Your task to perform on an android device: turn off improve location accuracy Image 0: 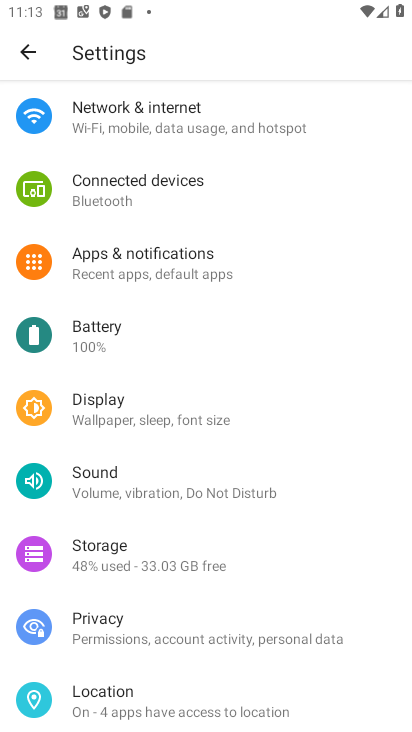
Step 0: click (155, 699)
Your task to perform on an android device: turn off improve location accuracy Image 1: 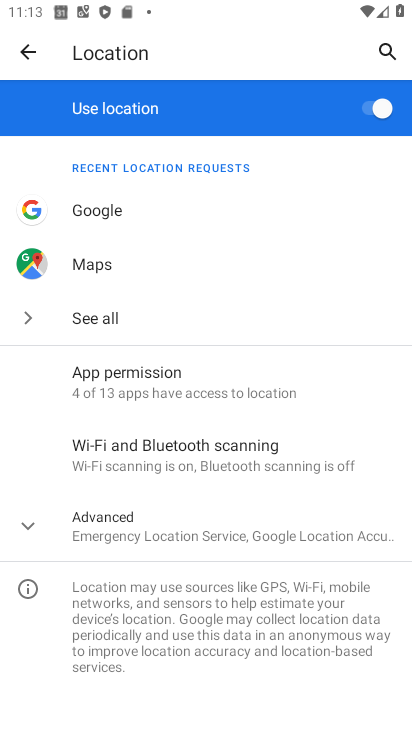
Step 1: click (204, 522)
Your task to perform on an android device: turn off improve location accuracy Image 2: 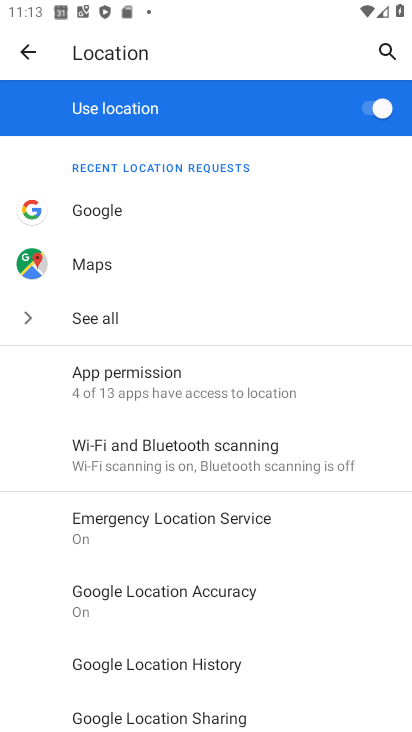
Step 2: click (230, 598)
Your task to perform on an android device: turn off improve location accuracy Image 3: 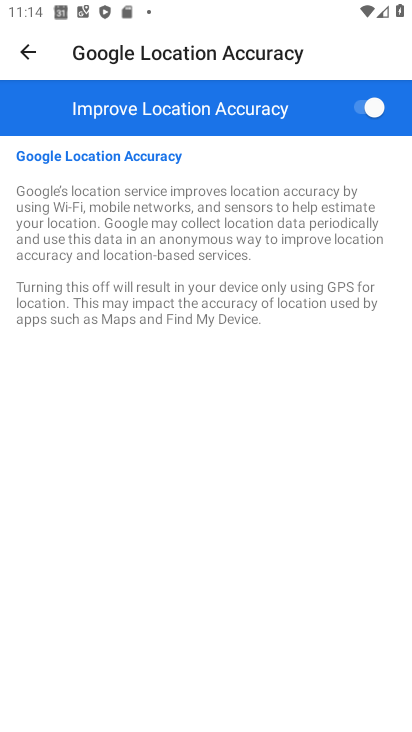
Step 3: click (357, 101)
Your task to perform on an android device: turn off improve location accuracy Image 4: 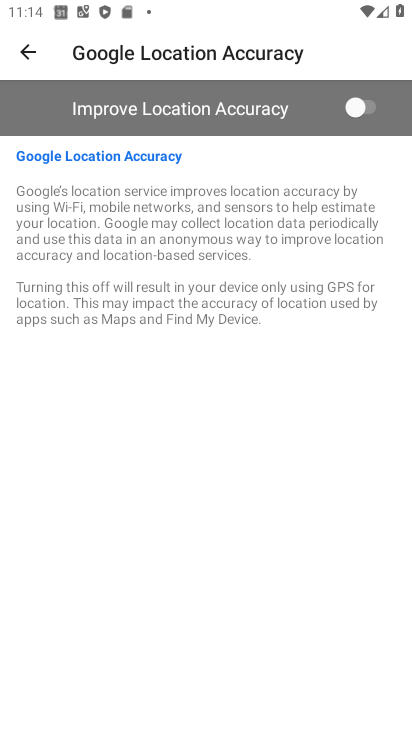
Step 4: task complete